Your task to perform on an android device: set an alarm Image 0: 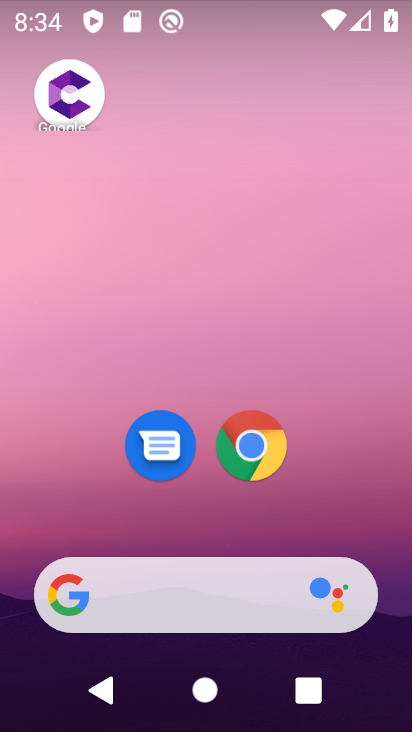
Step 0: drag from (85, 546) to (176, 118)
Your task to perform on an android device: set an alarm Image 1: 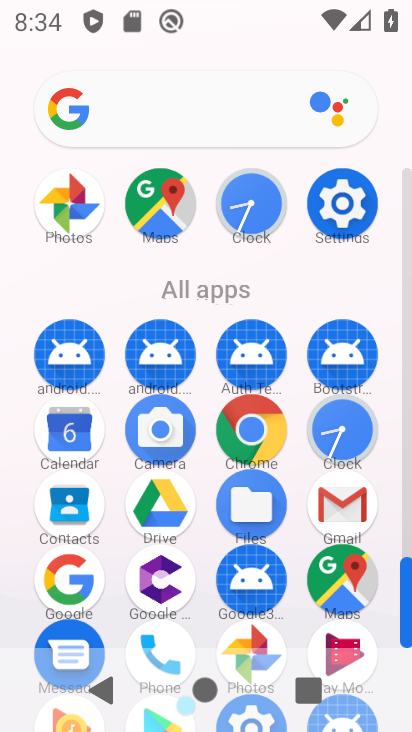
Step 1: click (337, 421)
Your task to perform on an android device: set an alarm Image 2: 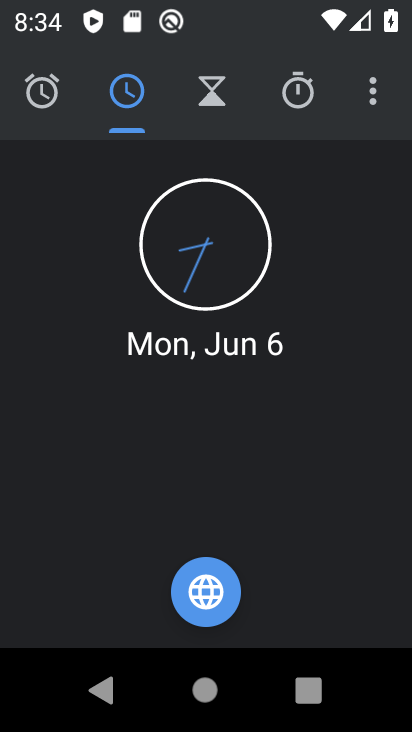
Step 2: click (47, 107)
Your task to perform on an android device: set an alarm Image 3: 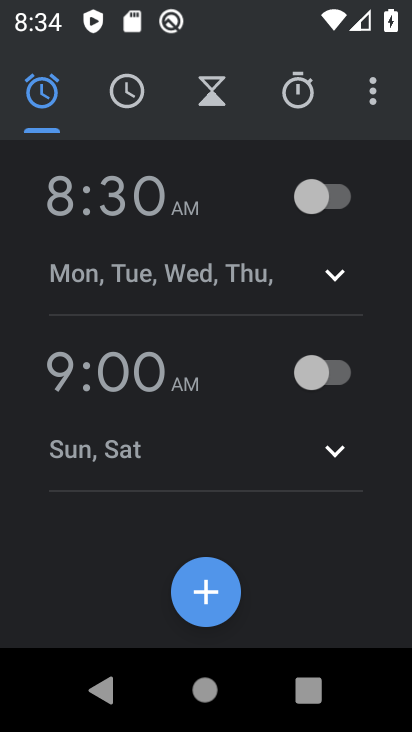
Step 3: click (200, 604)
Your task to perform on an android device: set an alarm Image 4: 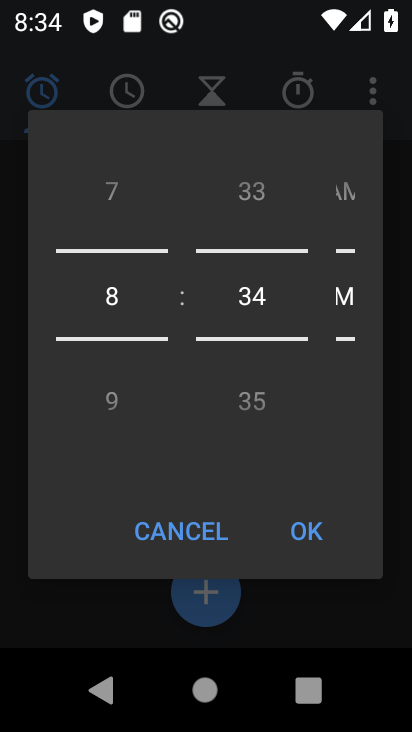
Step 4: click (116, 397)
Your task to perform on an android device: set an alarm Image 5: 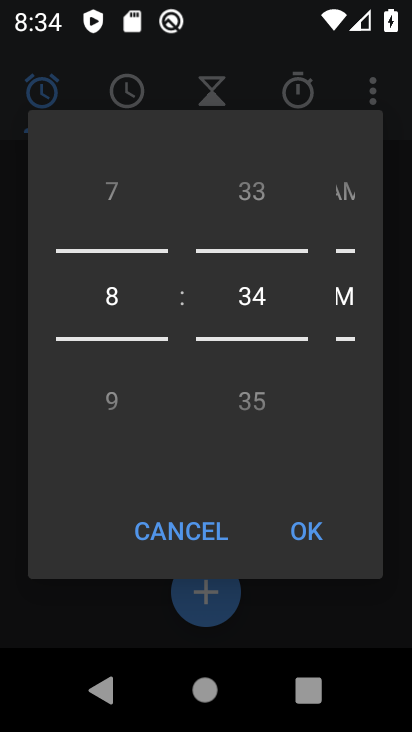
Step 5: drag from (115, 388) to (178, 148)
Your task to perform on an android device: set an alarm Image 6: 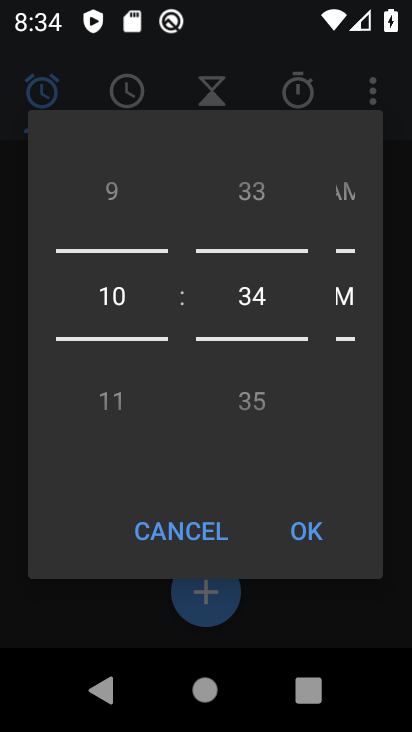
Step 6: drag from (250, 386) to (269, 222)
Your task to perform on an android device: set an alarm Image 7: 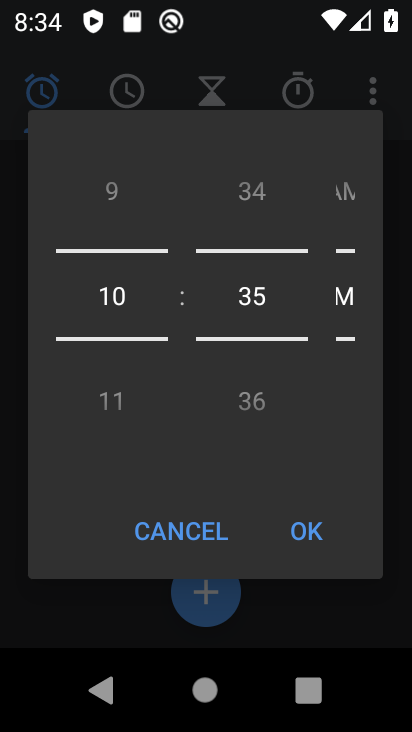
Step 7: drag from (349, 284) to (367, 501)
Your task to perform on an android device: set an alarm Image 8: 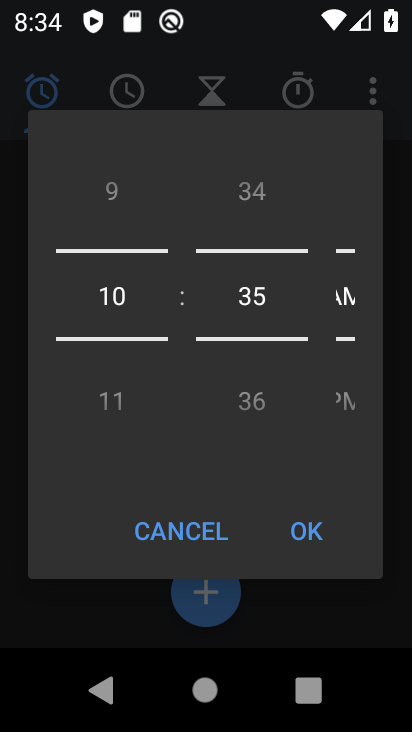
Step 8: click (323, 523)
Your task to perform on an android device: set an alarm Image 9: 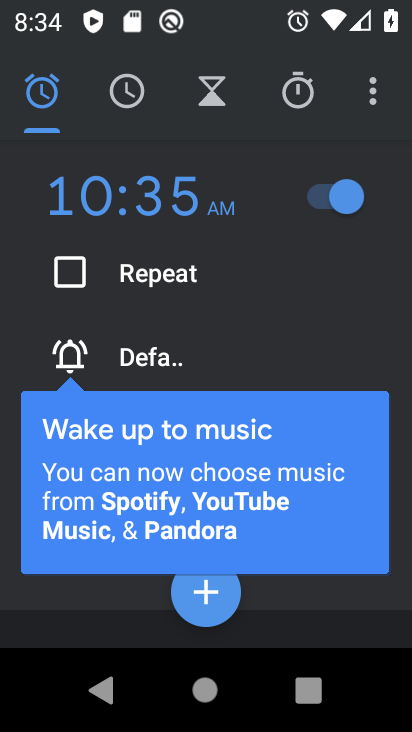
Step 9: task complete